Your task to perform on an android device: Open Chrome and go to settings Image 0: 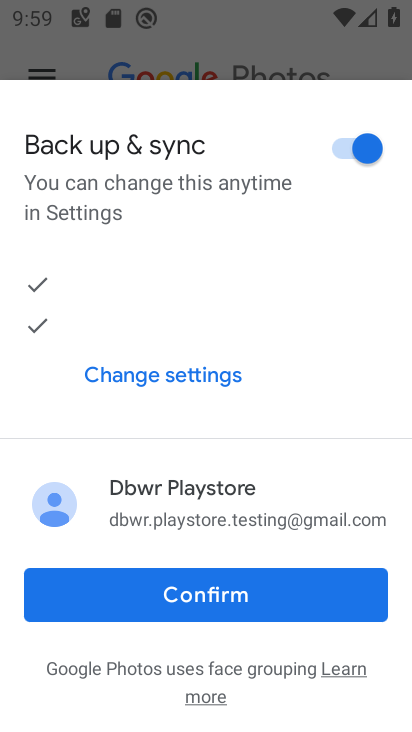
Step 0: press home button
Your task to perform on an android device: Open Chrome and go to settings Image 1: 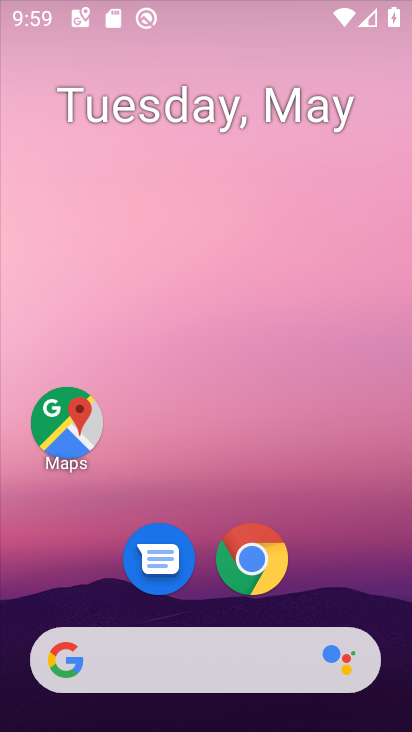
Step 1: drag from (401, 674) to (297, 46)
Your task to perform on an android device: Open Chrome and go to settings Image 2: 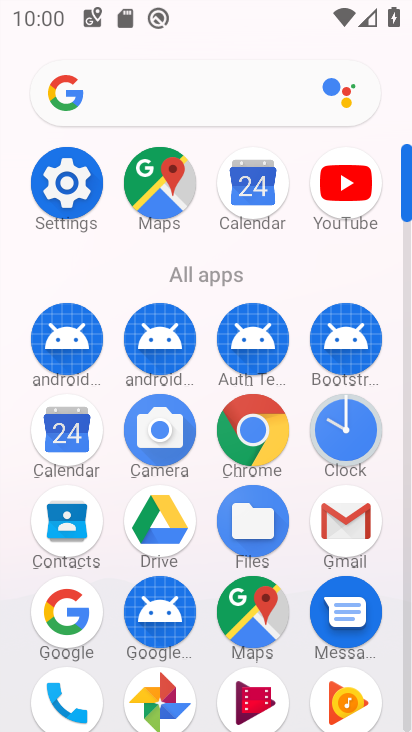
Step 2: click (241, 408)
Your task to perform on an android device: Open Chrome and go to settings Image 3: 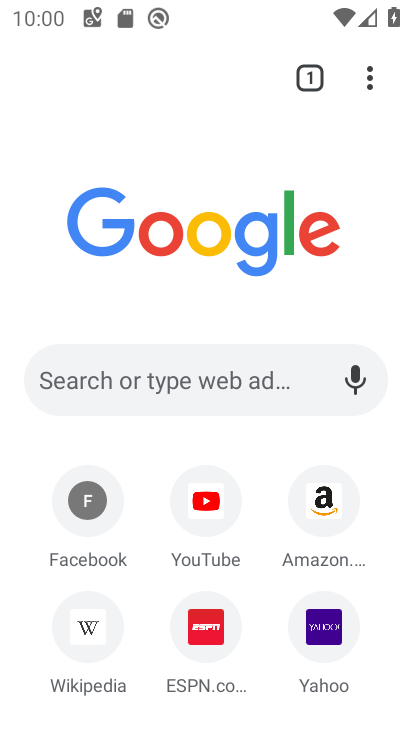
Step 3: click (371, 80)
Your task to perform on an android device: Open Chrome and go to settings Image 4: 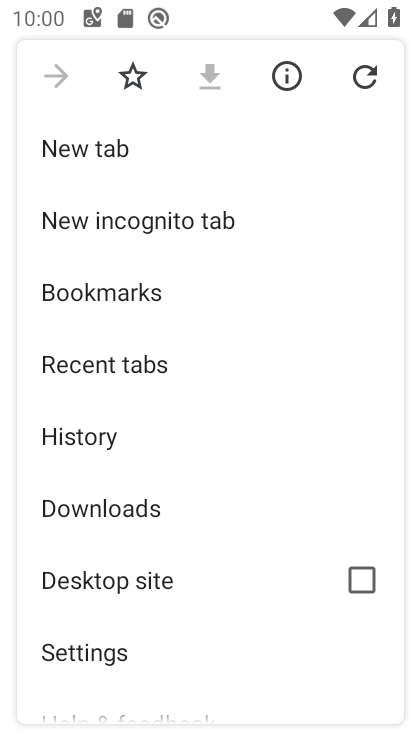
Step 4: click (104, 661)
Your task to perform on an android device: Open Chrome and go to settings Image 5: 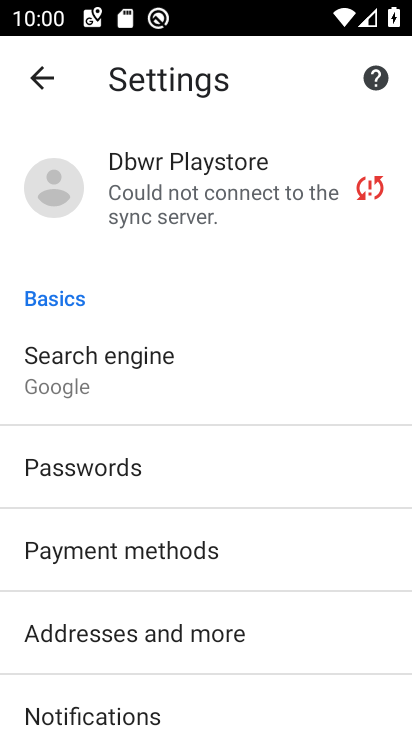
Step 5: task complete